Your task to perform on an android device: What is the recent news? Image 0: 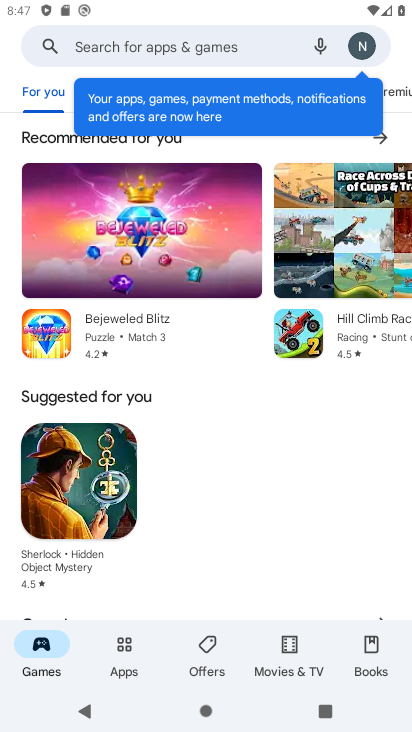
Step 0: press home button
Your task to perform on an android device: What is the recent news? Image 1: 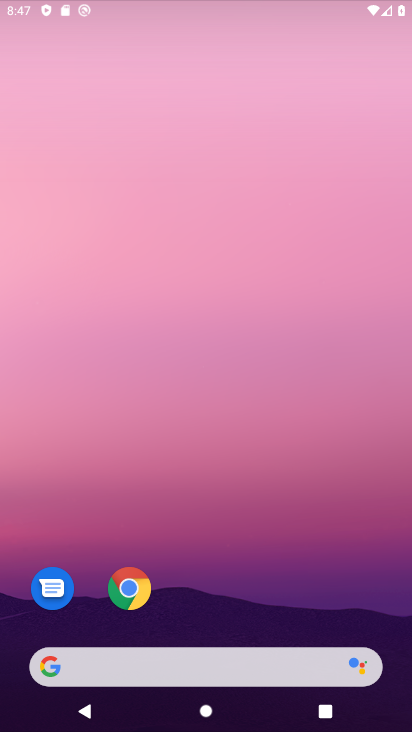
Step 1: drag from (320, 580) to (235, 6)
Your task to perform on an android device: What is the recent news? Image 2: 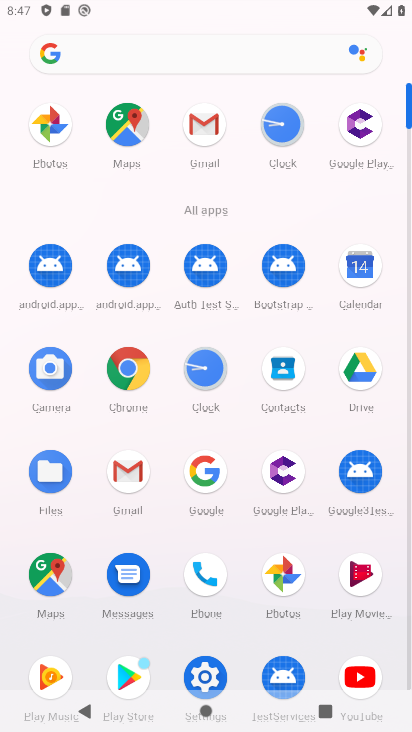
Step 2: click (126, 367)
Your task to perform on an android device: What is the recent news? Image 3: 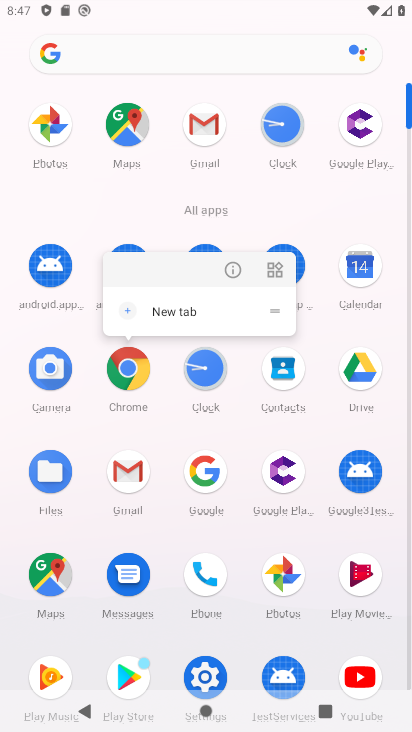
Step 3: click (117, 359)
Your task to perform on an android device: What is the recent news? Image 4: 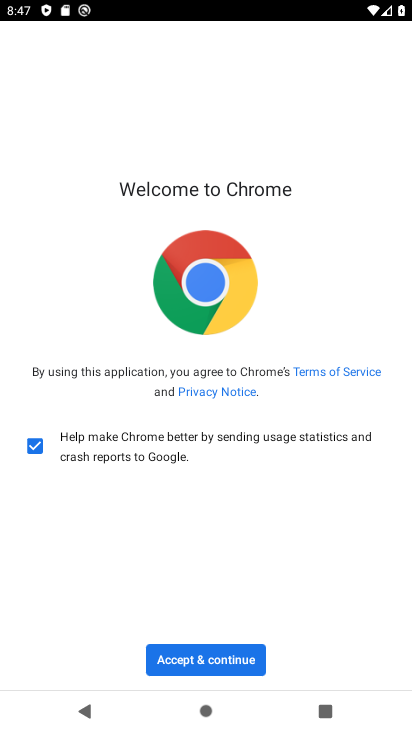
Step 4: click (244, 666)
Your task to perform on an android device: What is the recent news? Image 5: 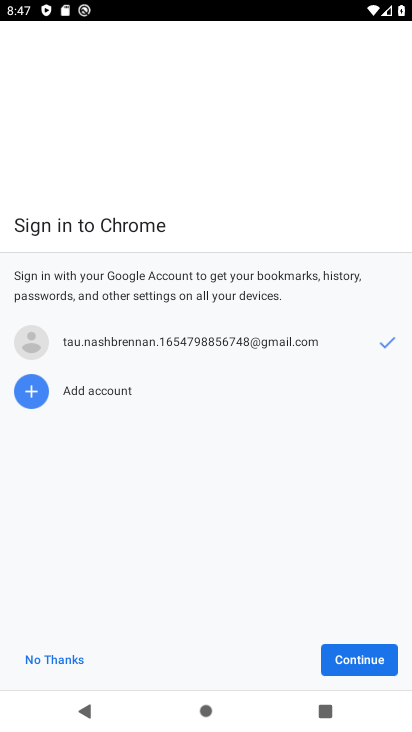
Step 5: click (35, 657)
Your task to perform on an android device: What is the recent news? Image 6: 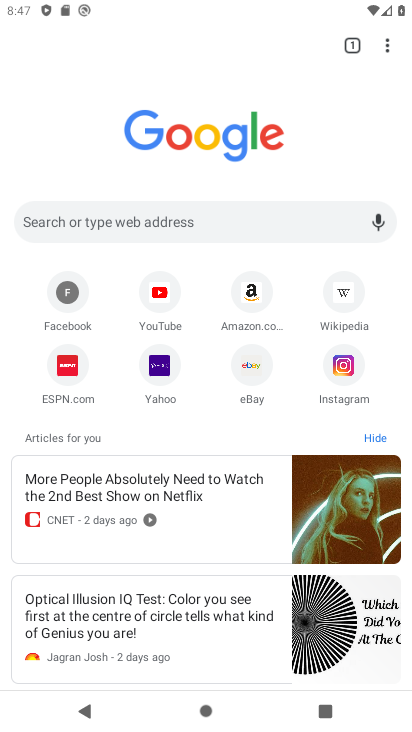
Step 6: task complete